Your task to perform on an android device: open a new tab in the chrome app Image 0: 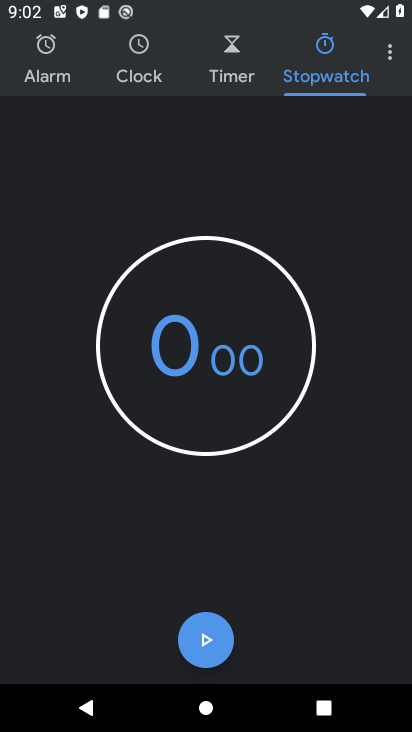
Step 0: press home button
Your task to perform on an android device: open a new tab in the chrome app Image 1: 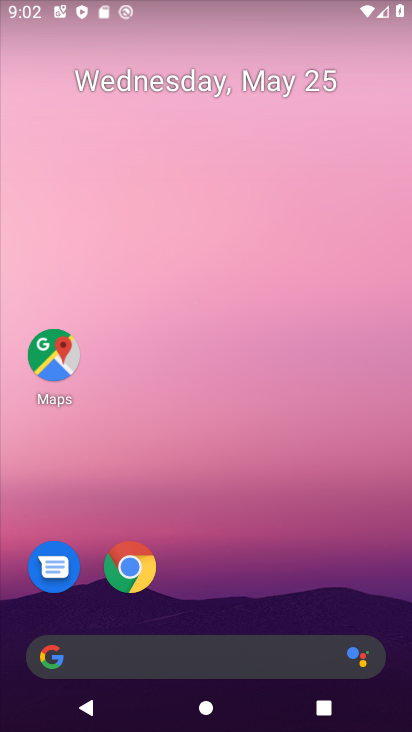
Step 1: click (121, 553)
Your task to perform on an android device: open a new tab in the chrome app Image 2: 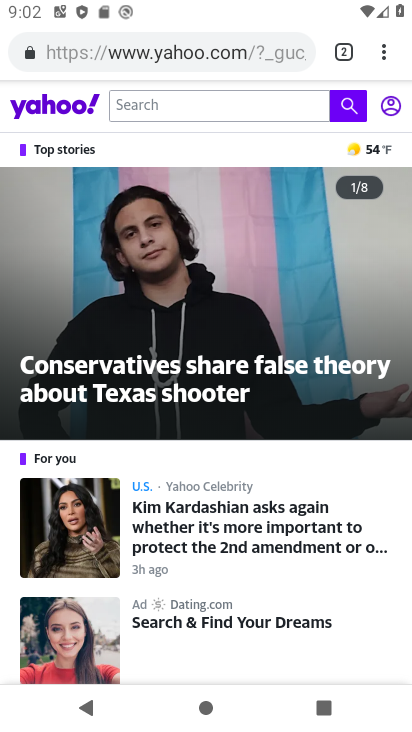
Step 2: click (343, 60)
Your task to perform on an android device: open a new tab in the chrome app Image 3: 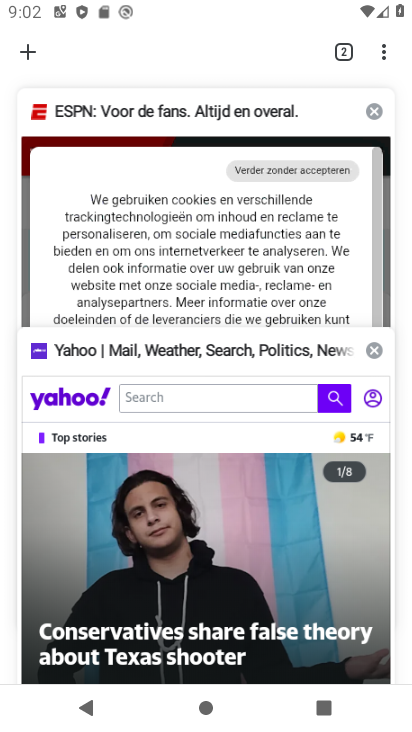
Step 3: click (20, 55)
Your task to perform on an android device: open a new tab in the chrome app Image 4: 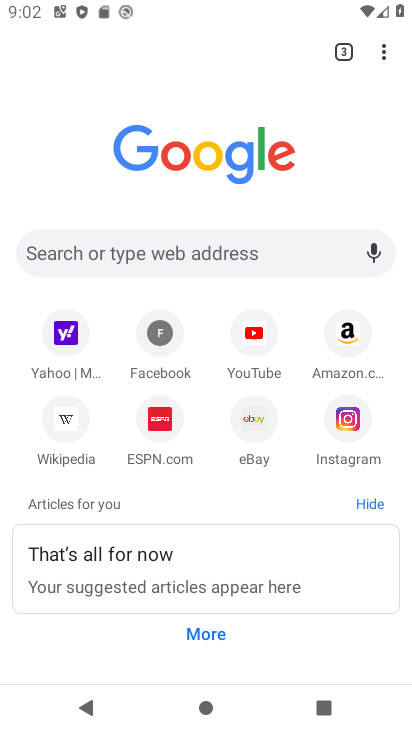
Step 4: task complete